Your task to perform on an android device: Open Google Chrome and click the shortcut for Amazon.com Image 0: 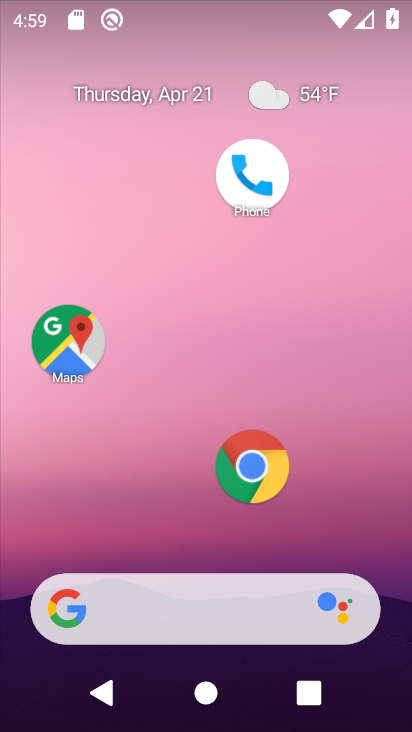
Step 0: click (275, 470)
Your task to perform on an android device: Open Google Chrome and click the shortcut for Amazon.com Image 1: 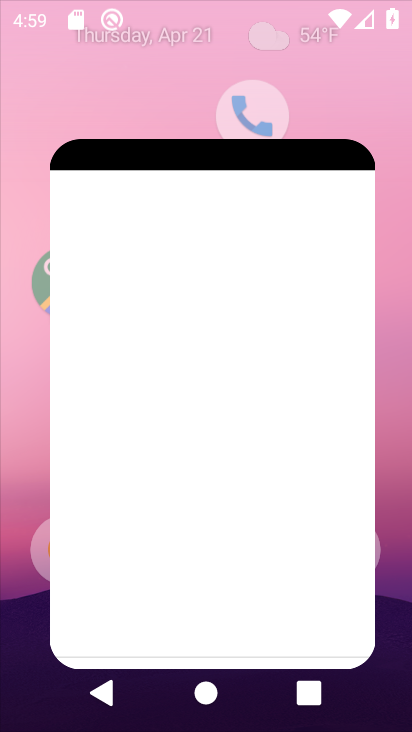
Step 1: click (259, 469)
Your task to perform on an android device: Open Google Chrome and click the shortcut for Amazon.com Image 2: 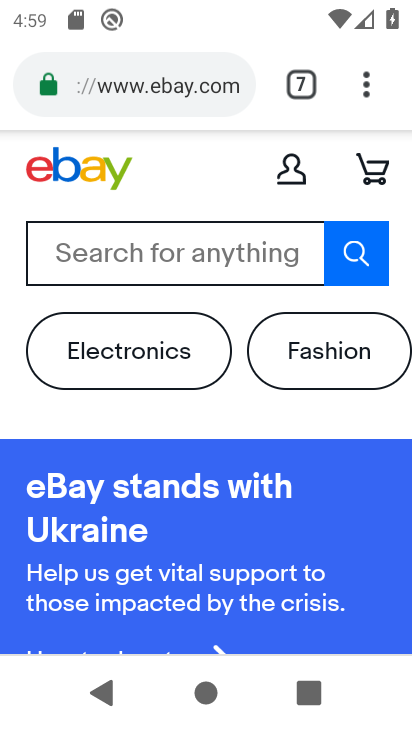
Step 2: click (300, 78)
Your task to perform on an android device: Open Google Chrome and click the shortcut for Amazon.com Image 3: 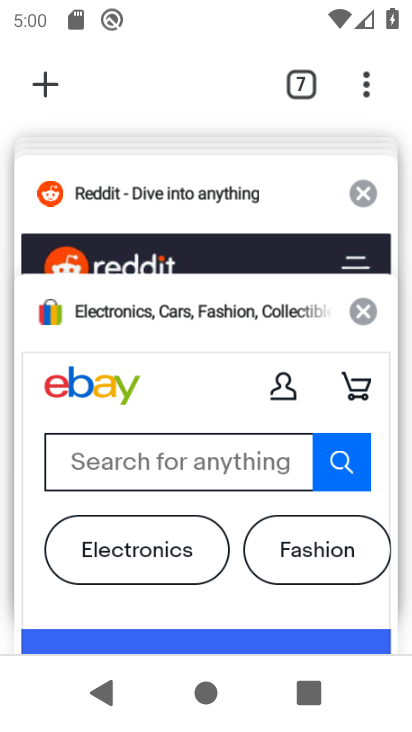
Step 3: click (53, 81)
Your task to perform on an android device: Open Google Chrome and click the shortcut for Amazon.com Image 4: 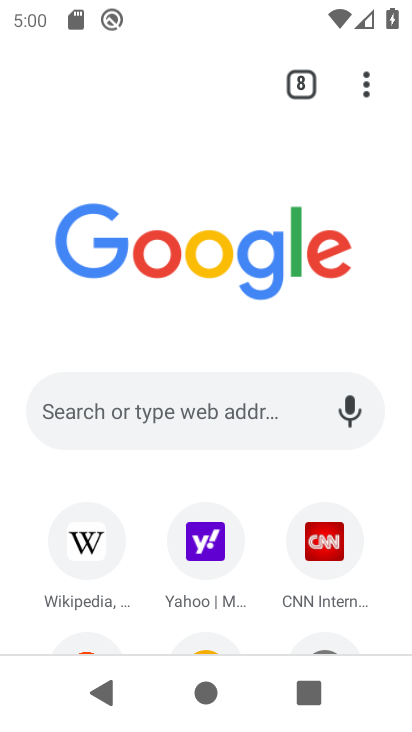
Step 4: drag from (143, 486) to (195, 152)
Your task to perform on an android device: Open Google Chrome and click the shortcut for Amazon.com Image 5: 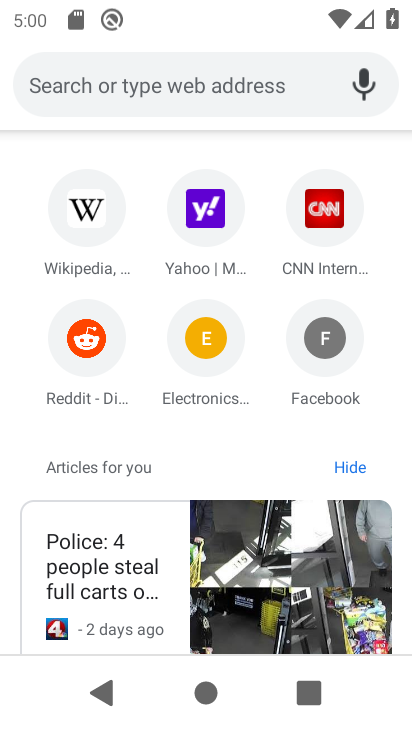
Step 5: click (155, 83)
Your task to perform on an android device: Open Google Chrome and click the shortcut for Amazon.com Image 6: 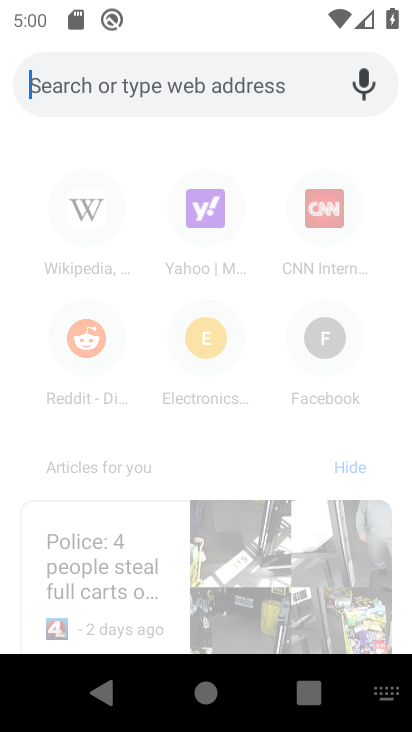
Step 6: type "amazon"
Your task to perform on an android device: Open Google Chrome and click the shortcut for Amazon.com Image 7: 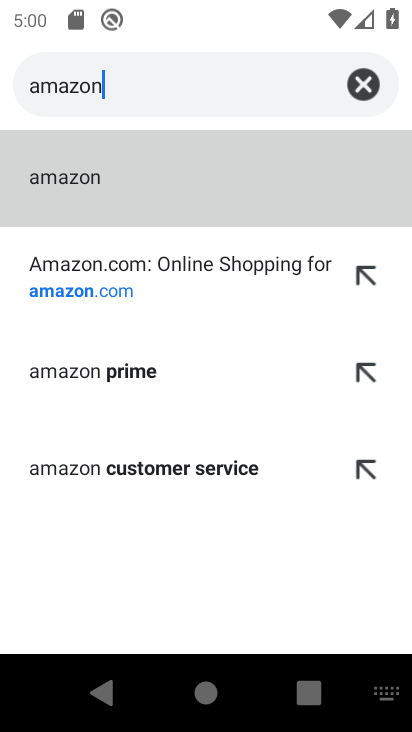
Step 7: click (84, 294)
Your task to perform on an android device: Open Google Chrome and click the shortcut for Amazon.com Image 8: 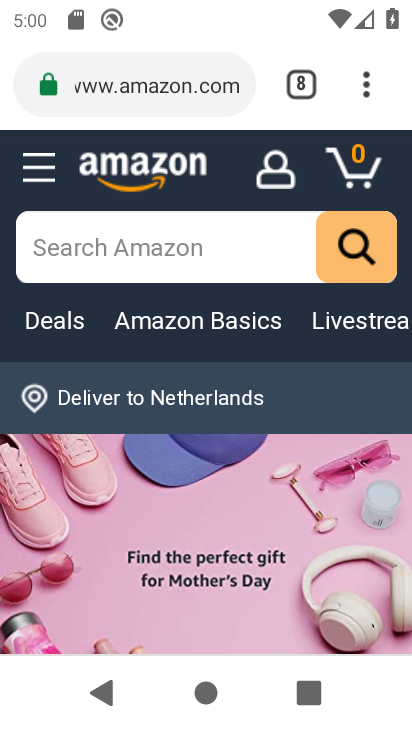
Step 8: task complete